Your task to perform on an android device: uninstall "LinkedIn" Image 0: 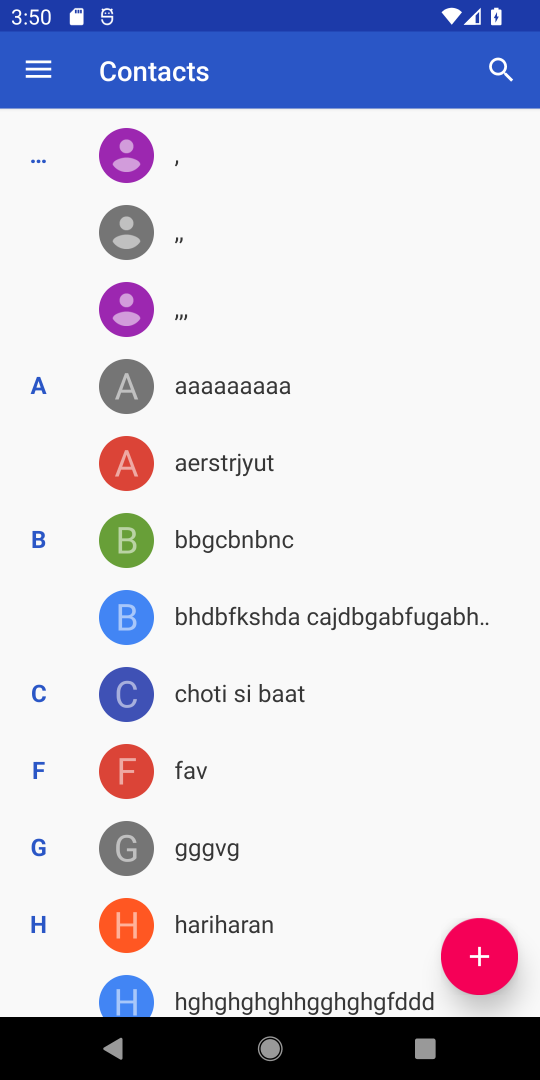
Step 0: press home button
Your task to perform on an android device: uninstall "LinkedIn" Image 1: 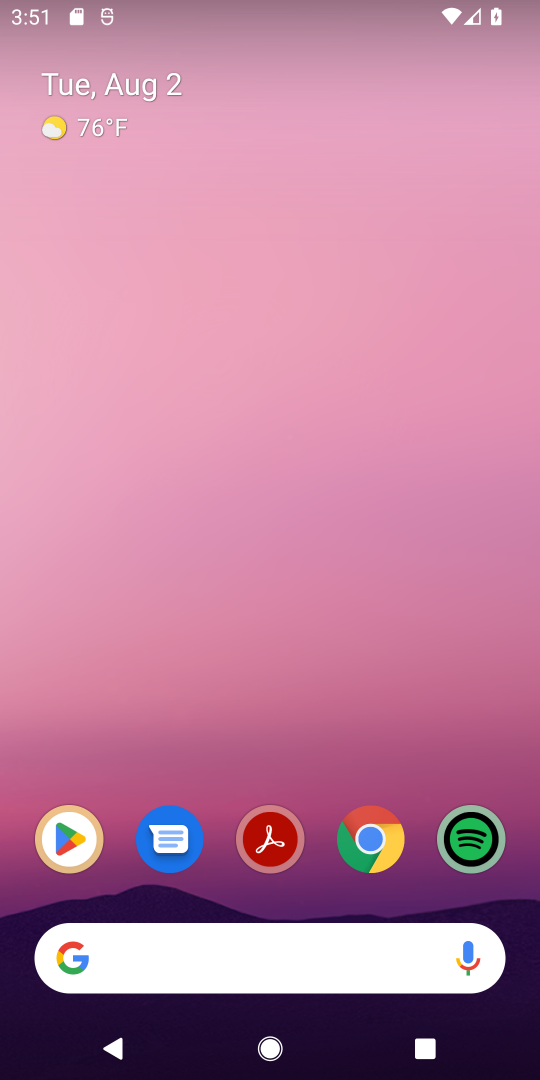
Step 1: drag from (269, 902) to (319, 126)
Your task to perform on an android device: uninstall "LinkedIn" Image 2: 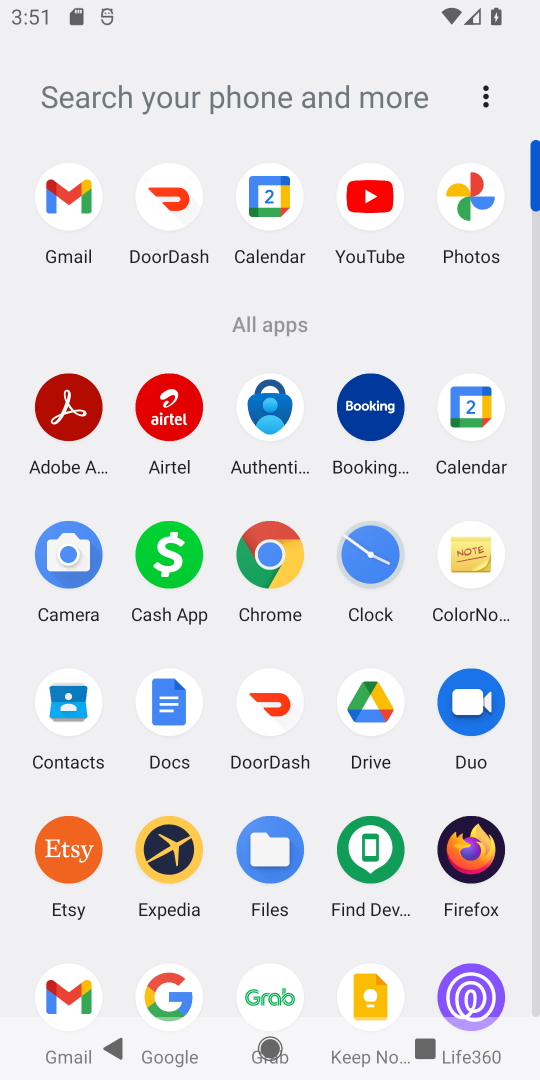
Step 2: click (534, 997)
Your task to perform on an android device: uninstall "LinkedIn" Image 3: 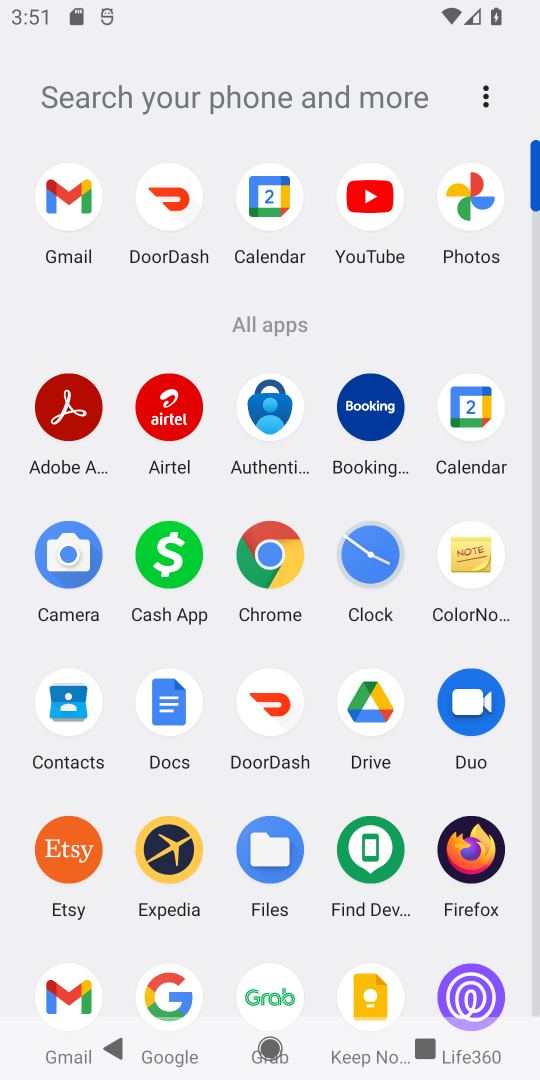
Step 3: drag from (534, 201) to (539, 331)
Your task to perform on an android device: uninstall "LinkedIn" Image 4: 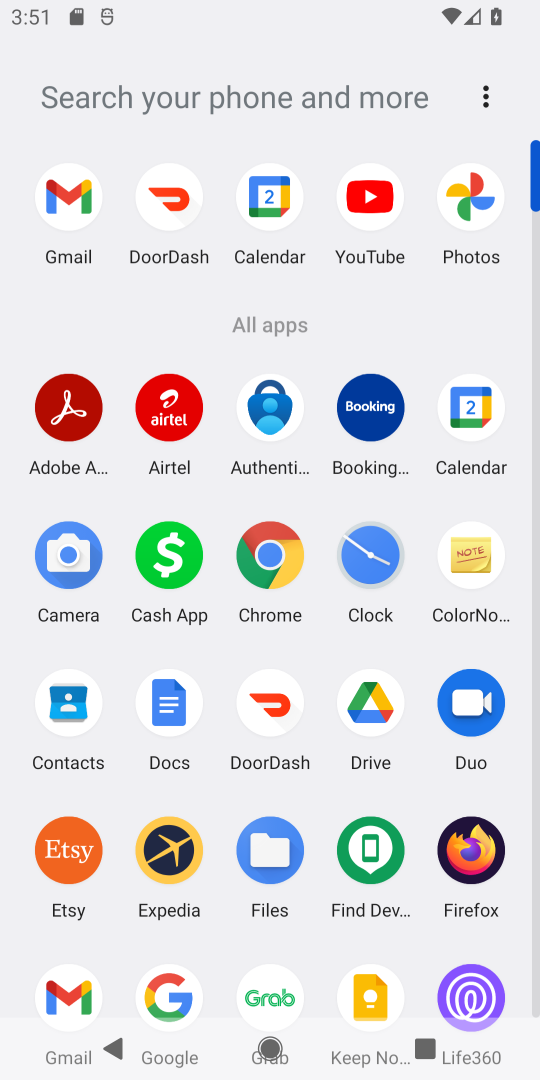
Step 4: click (534, 331)
Your task to perform on an android device: uninstall "LinkedIn" Image 5: 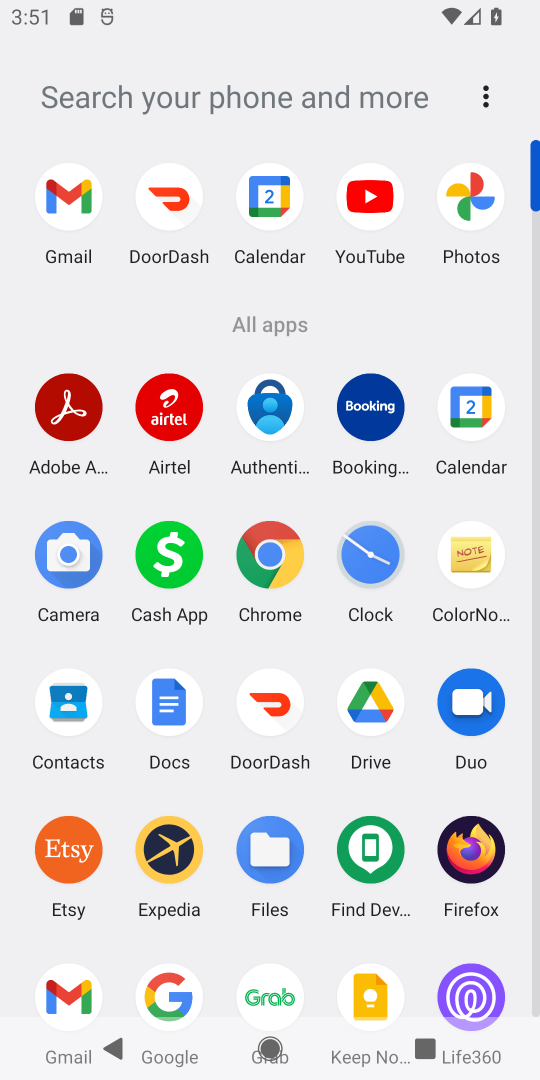
Step 5: click (534, 380)
Your task to perform on an android device: uninstall "LinkedIn" Image 6: 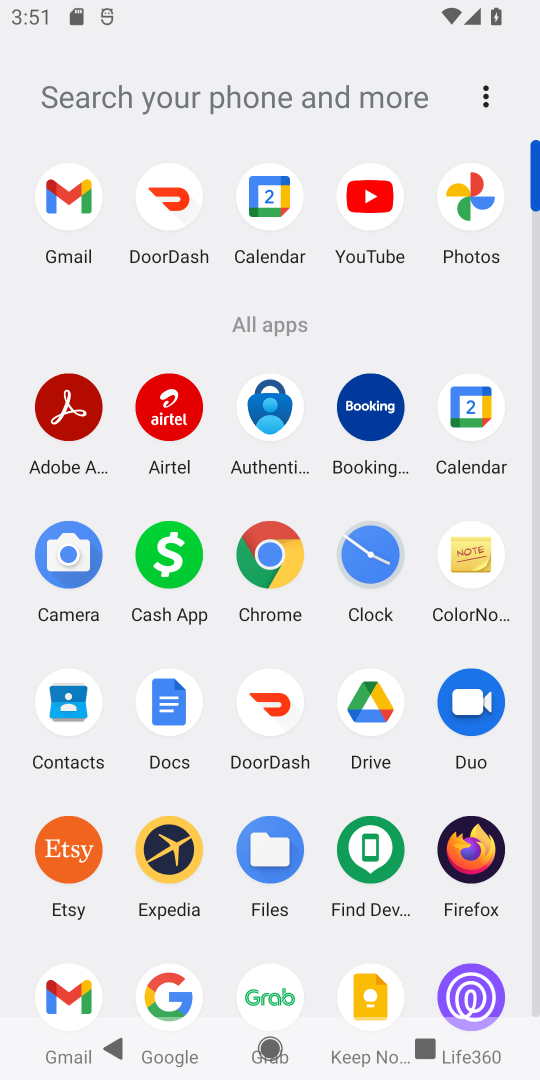
Step 6: click (536, 415)
Your task to perform on an android device: uninstall "LinkedIn" Image 7: 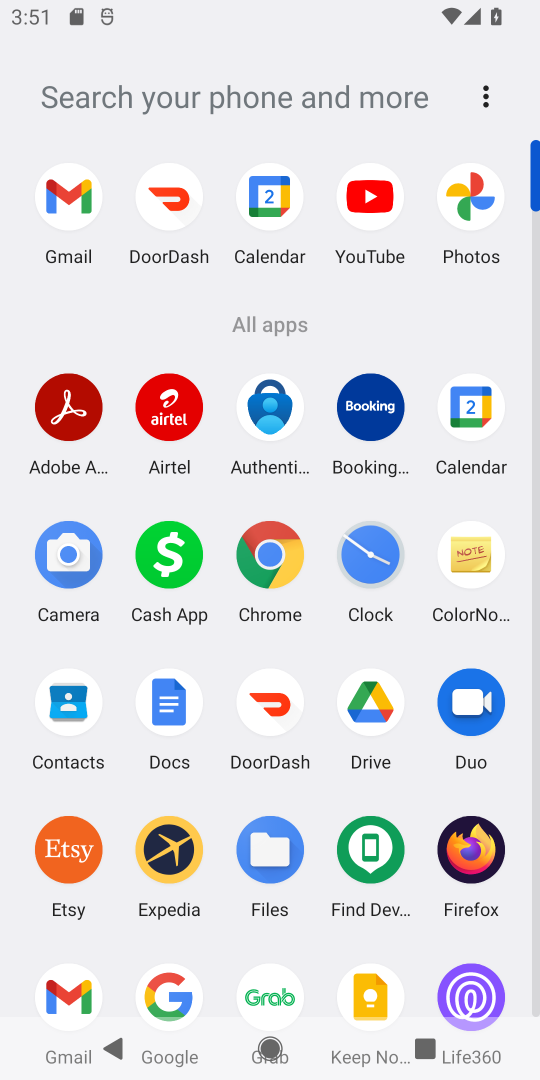
Step 7: click (536, 415)
Your task to perform on an android device: uninstall "LinkedIn" Image 8: 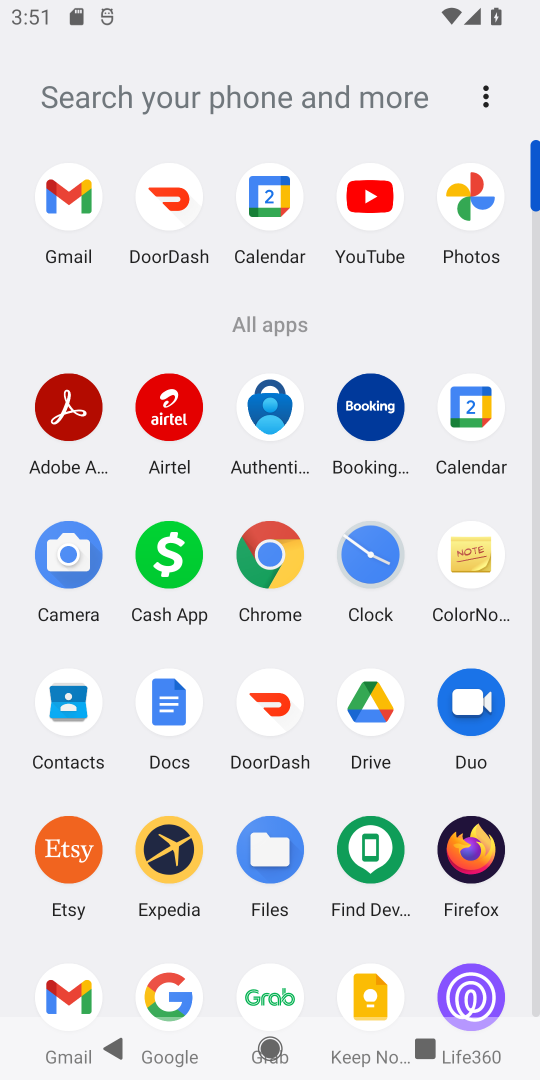
Step 8: drag from (537, 156) to (525, 263)
Your task to perform on an android device: uninstall "LinkedIn" Image 9: 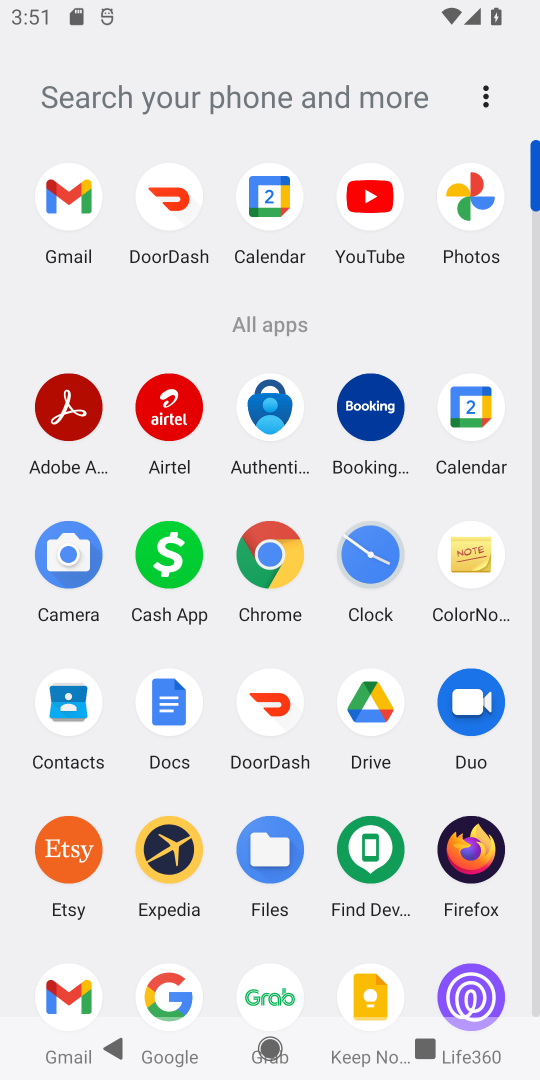
Step 9: click (533, 316)
Your task to perform on an android device: uninstall "LinkedIn" Image 10: 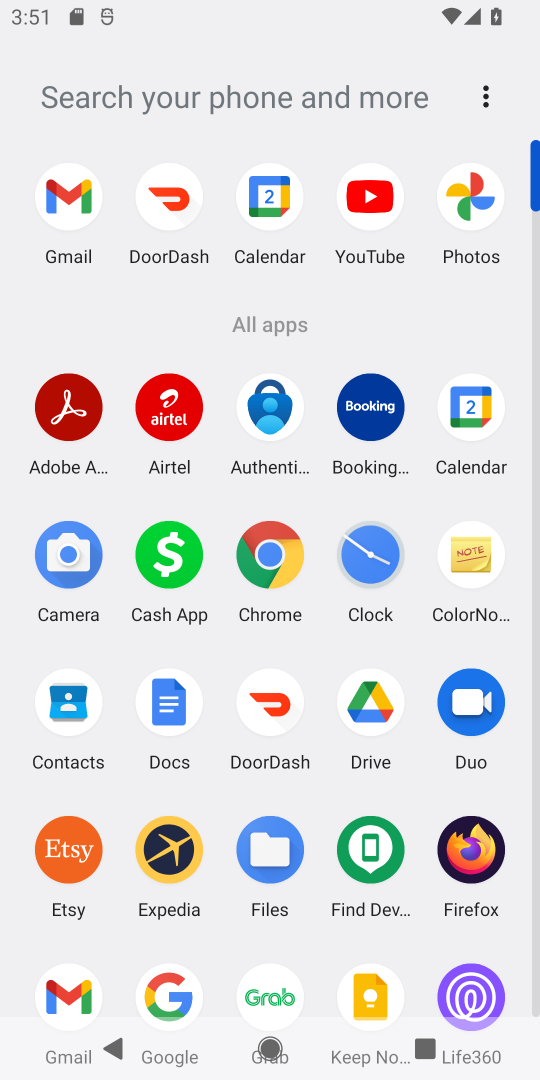
Step 10: click (416, 88)
Your task to perform on an android device: uninstall "LinkedIn" Image 11: 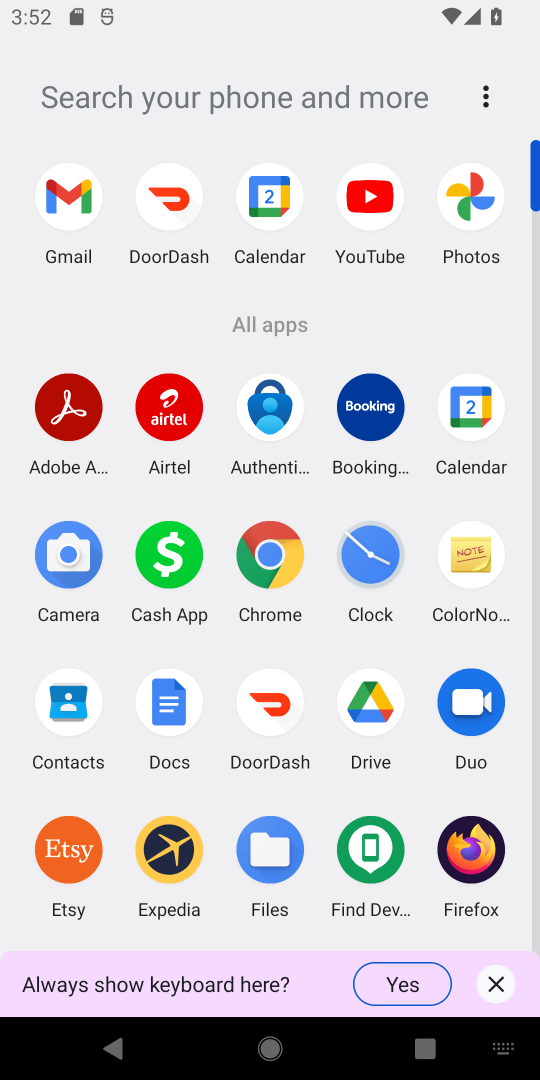
Step 11: type "linkedin"
Your task to perform on an android device: uninstall "LinkedIn" Image 12: 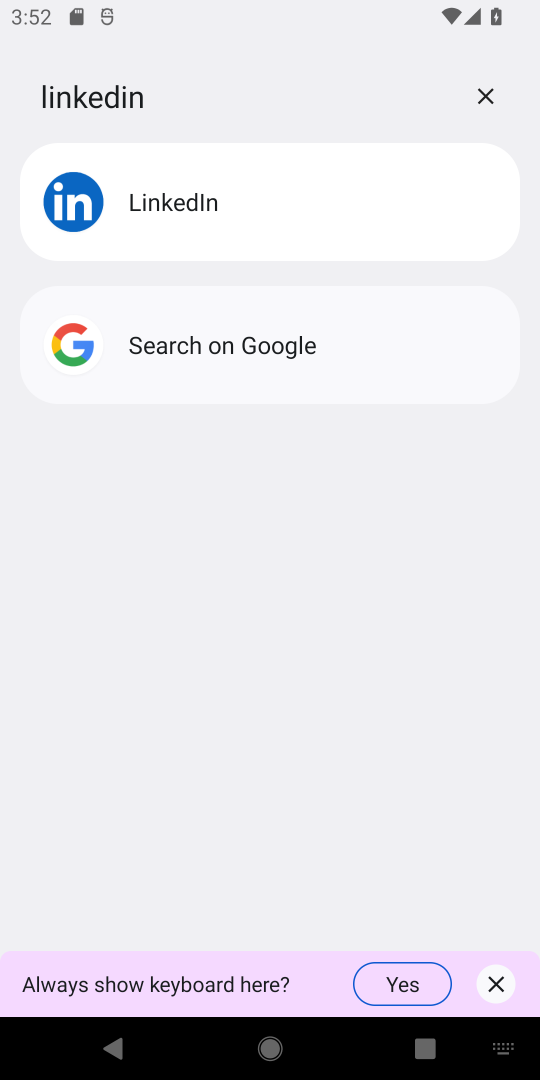
Step 12: click (318, 202)
Your task to perform on an android device: uninstall "LinkedIn" Image 13: 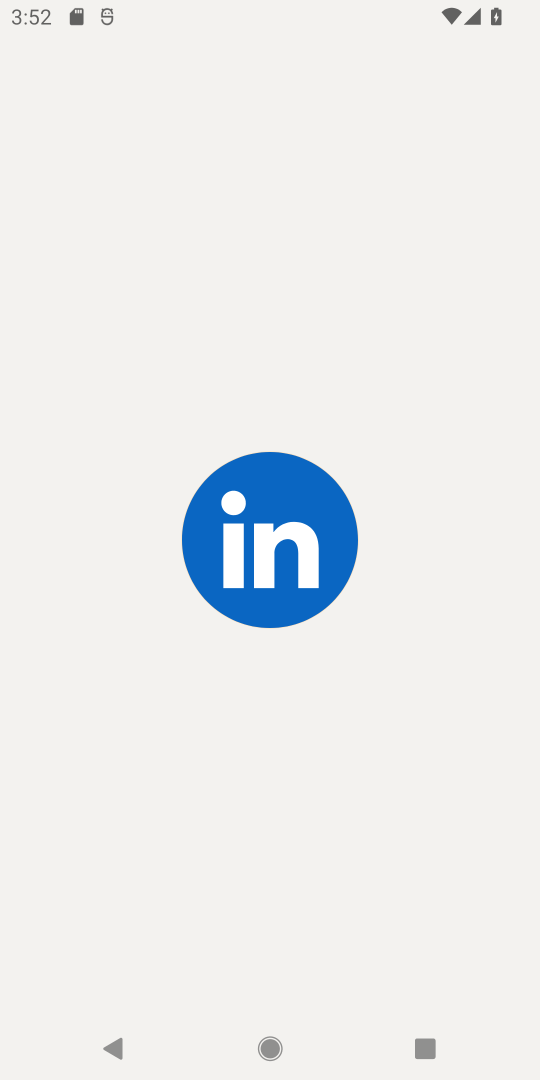
Step 13: task complete